Your task to perform on an android device: Open Amazon Image 0: 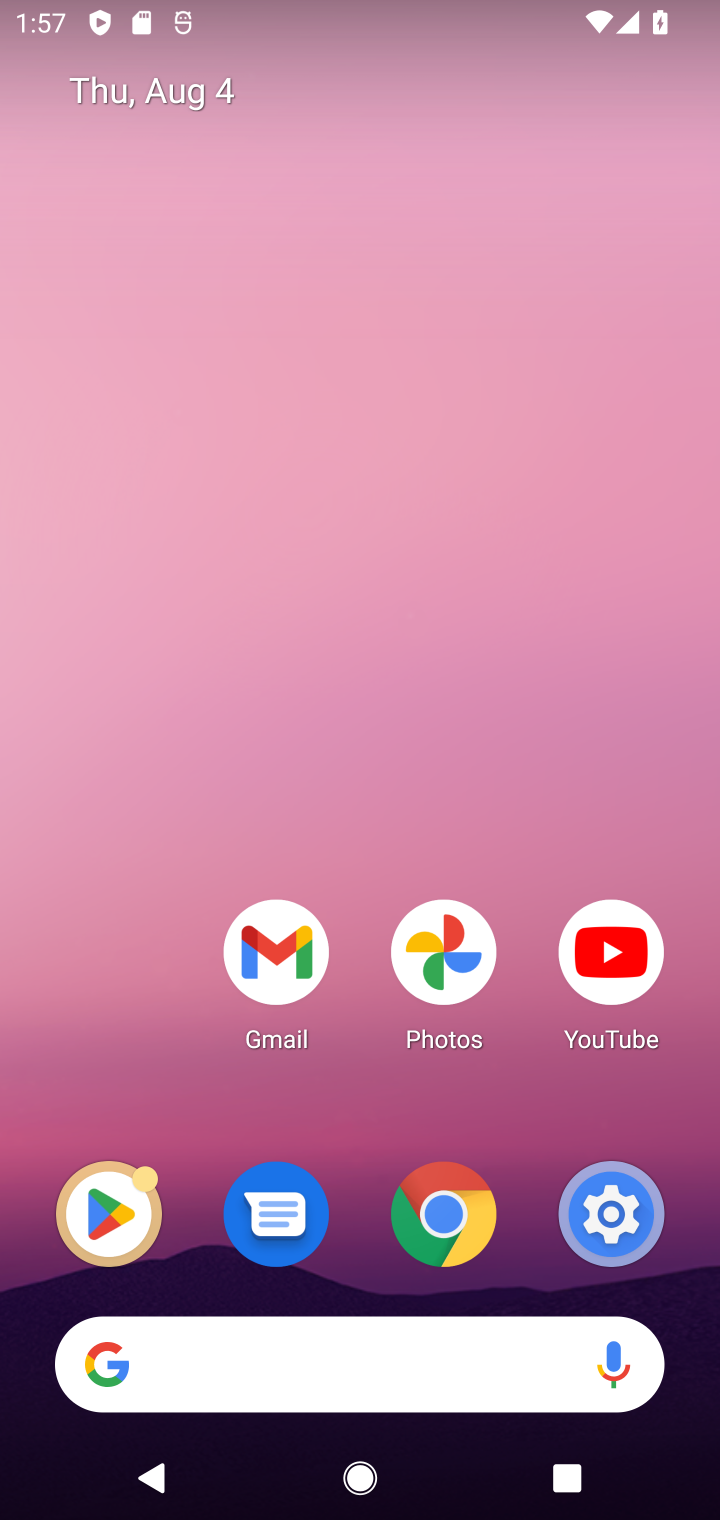
Step 0: drag from (491, 956) to (288, 252)
Your task to perform on an android device: Open Amazon Image 1: 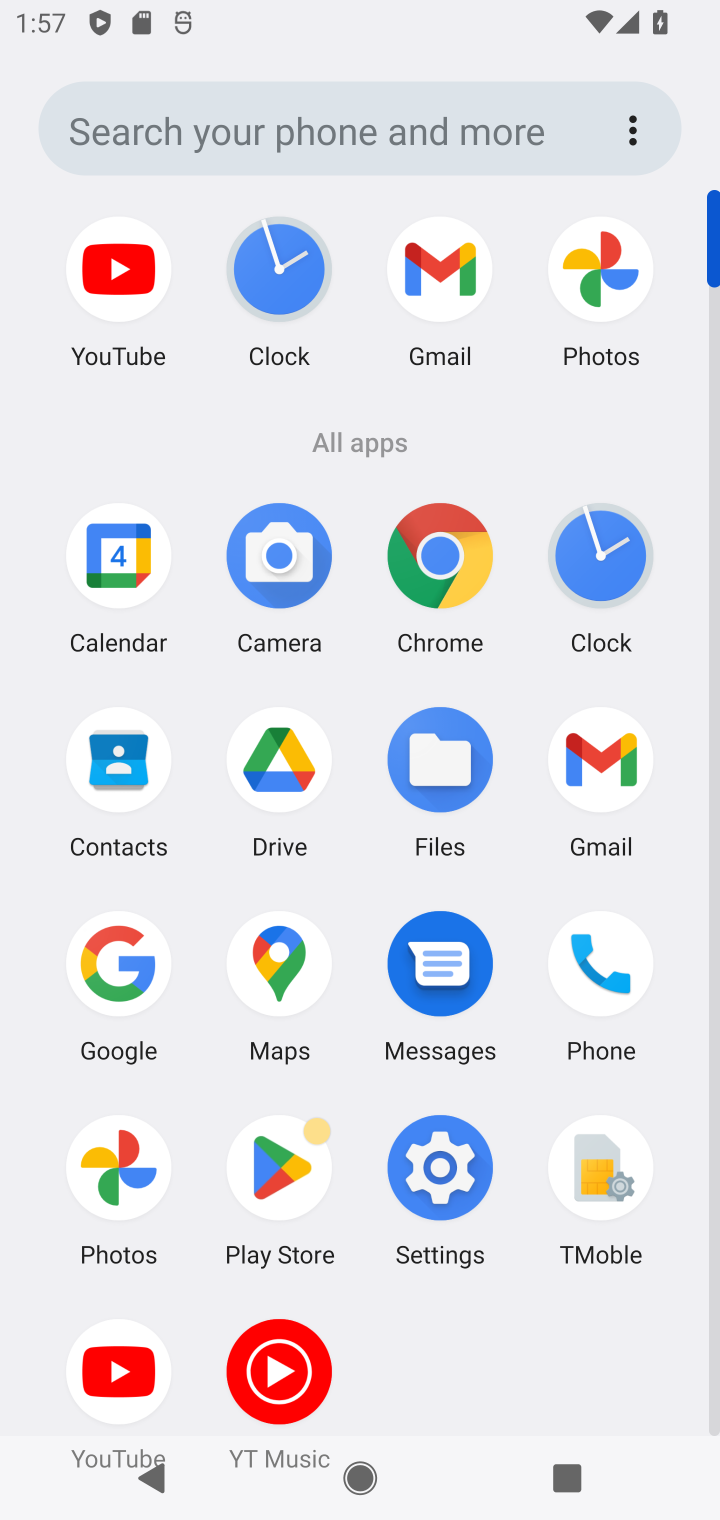
Step 1: click (121, 936)
Your task to perform on an android device: Open Amazon Image 2: 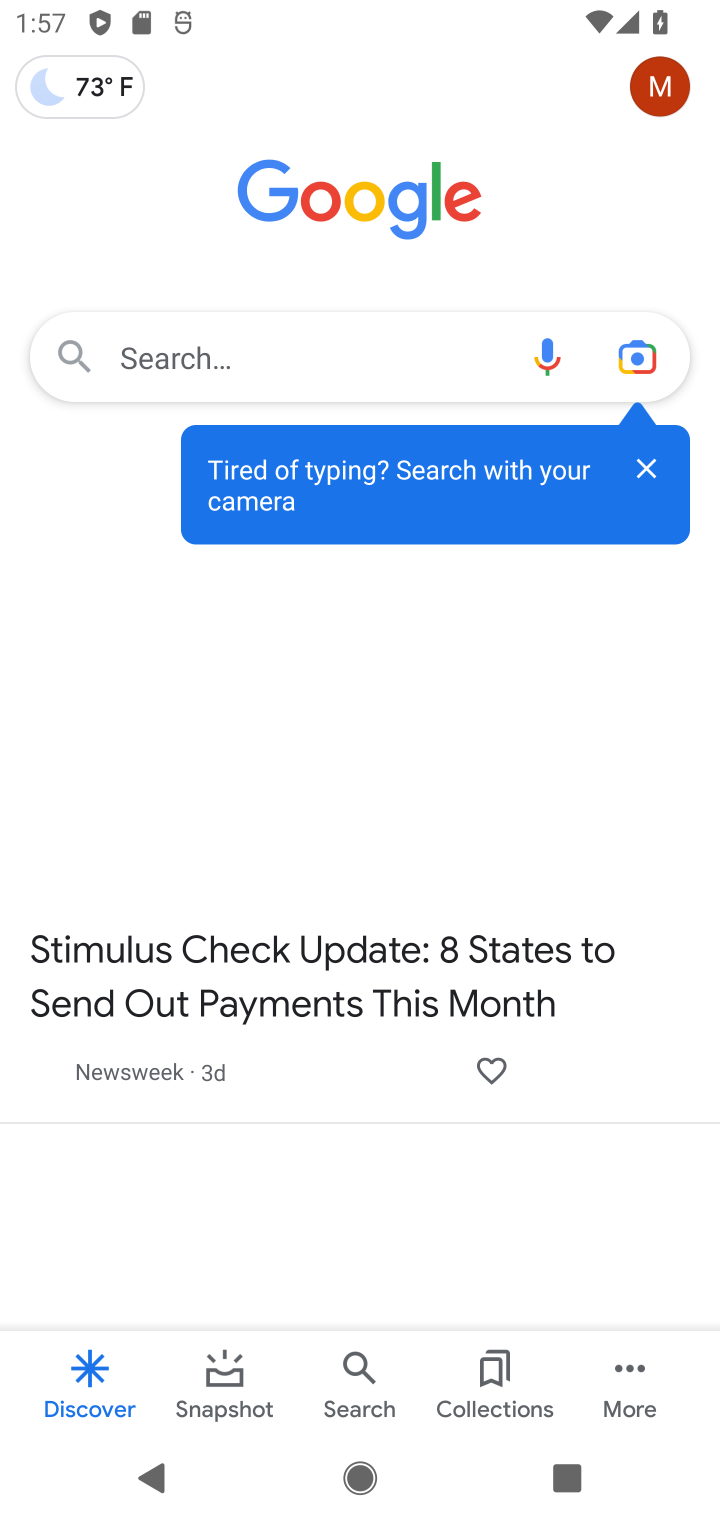
Step 2: click (192, 365)
Your task to perform on an android device: Open Amazon Image 3: 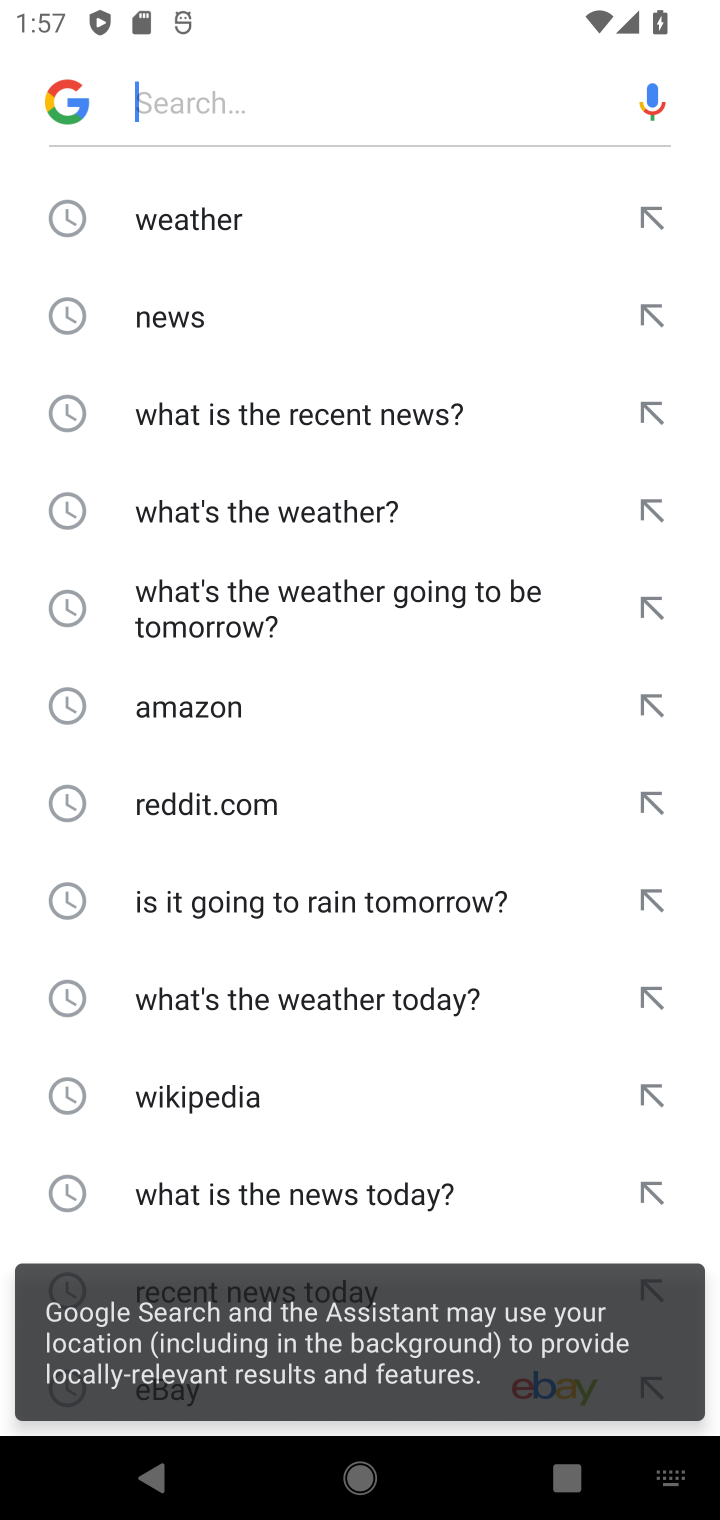
Step 3: click (206, 711)
Your task to perform on an android device: Open Amazon Image 4: 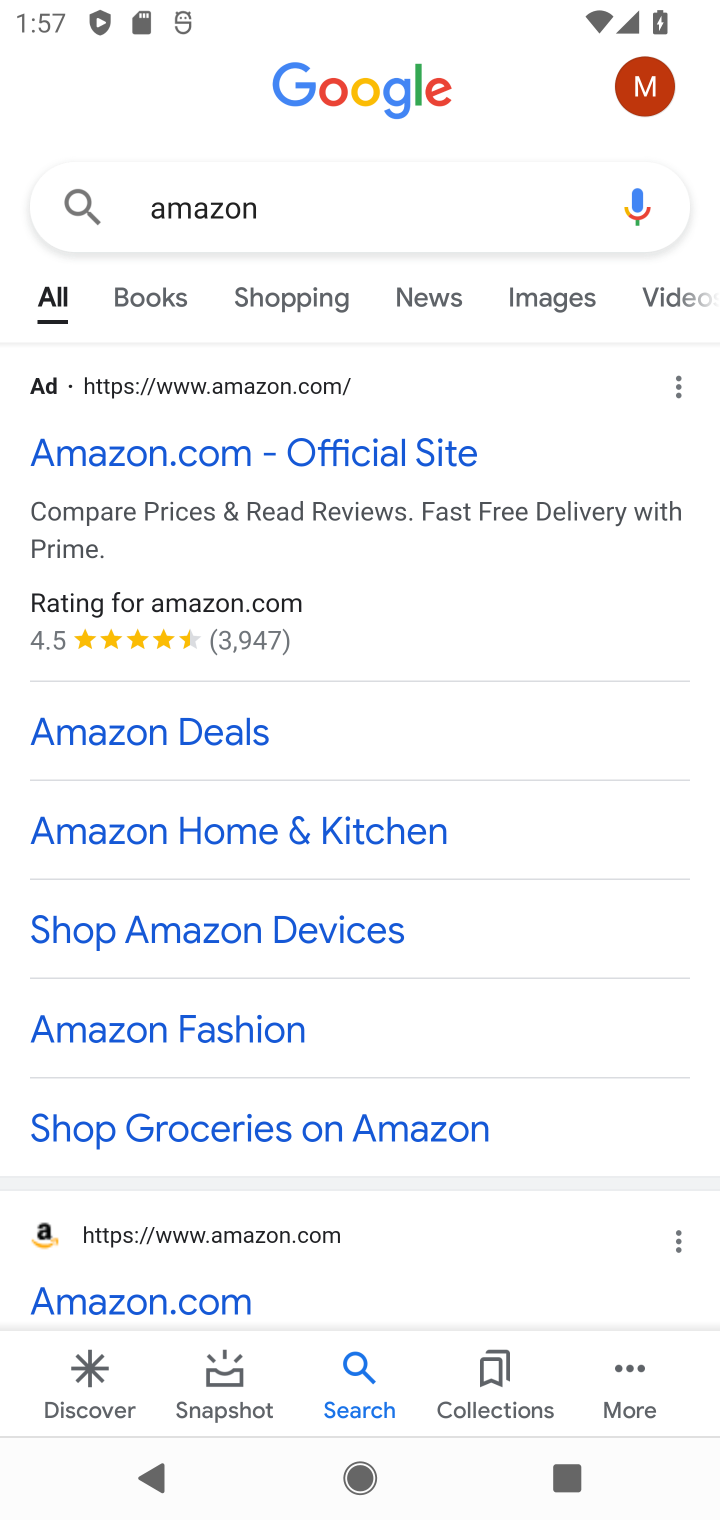
Step 4: task complete